Your task to perform on an android device: Check the weather Image 0: 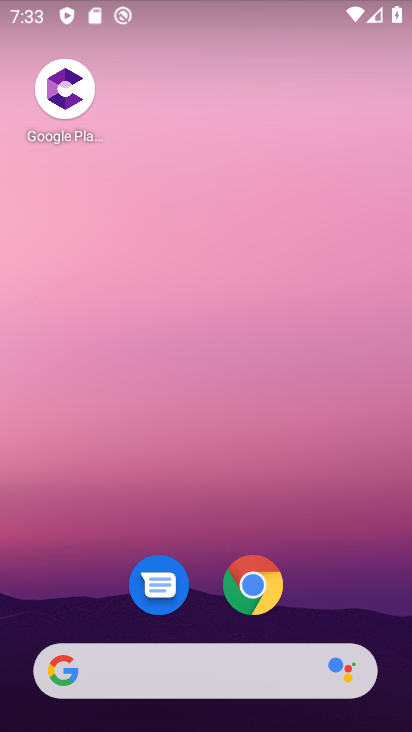
Step 0: drag from (306, 596) to (289, 48)
Your task to perform on an android device: Check the weather Image 1: 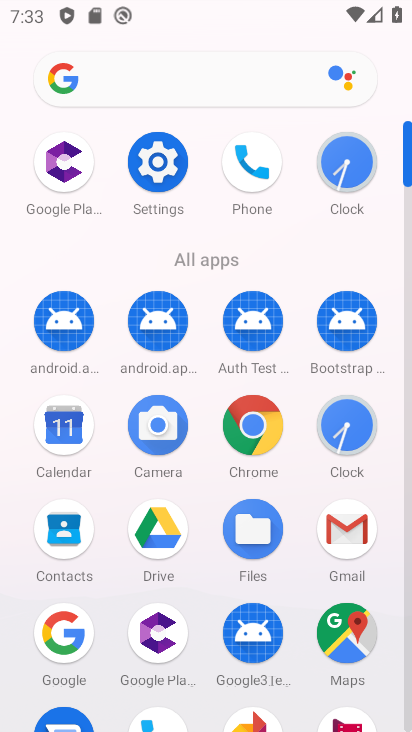
Step 1: click (244, 83)
Your task to perform on an android device: Check the weather Image 2: 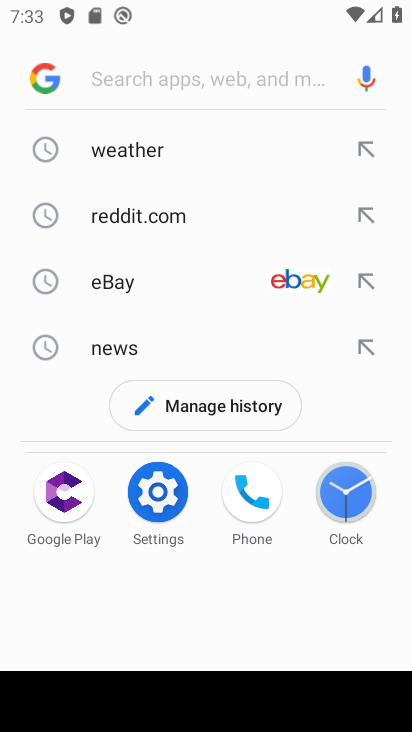
Step 2: click (140, 148)
Your task to perform on an android device: Check the weather Image 3: 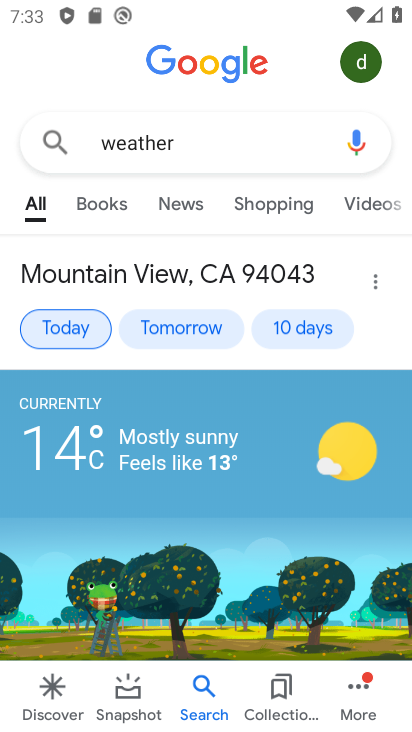
Step 3: task complete